Your task to perform on an android device: Open Google Chrome Image 0: 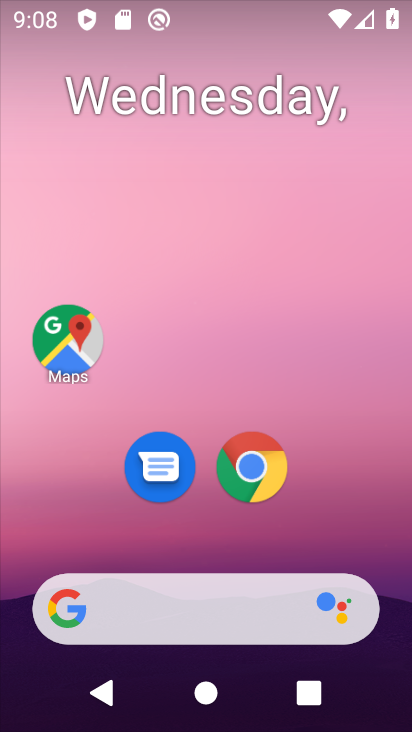
Step 0: click (217, 215)
Your task to perform on an android device: Open Google Chrome Image 1: 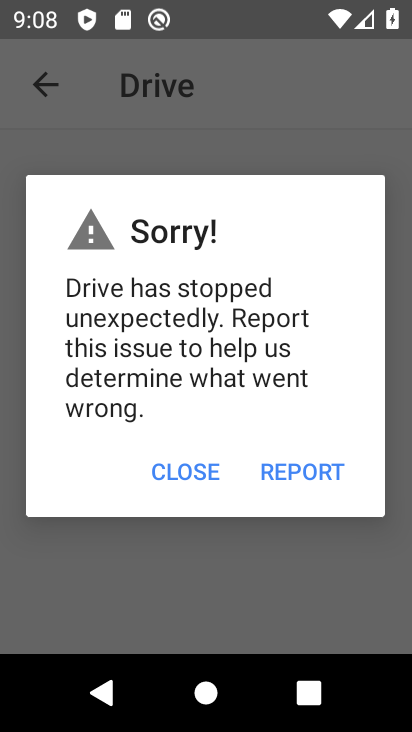
Step 1: click (188, 474)
Your task to perform on an android device: Open Google Chrome Image 2: 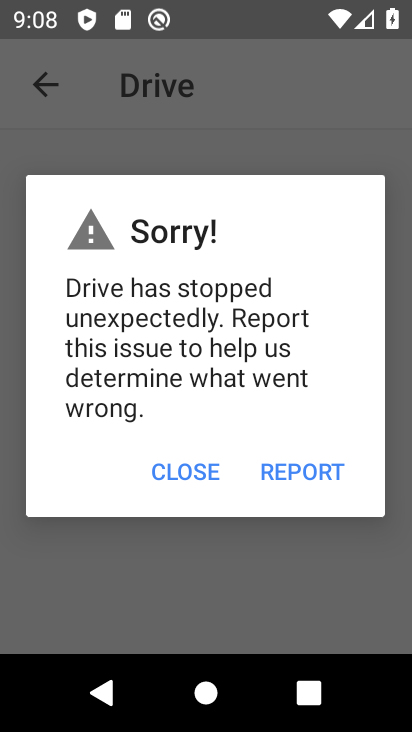
Step 2: click (183, 475)
Your task to perform on an android device: Open Google Chrome Image 3: 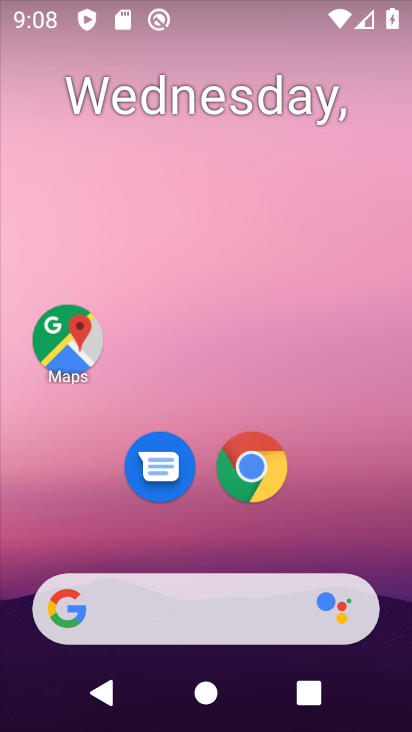
Step 3: drag from (297, 517) to (115, 12)
Your task to perform on an android device: Open Google Chrome Image 4: 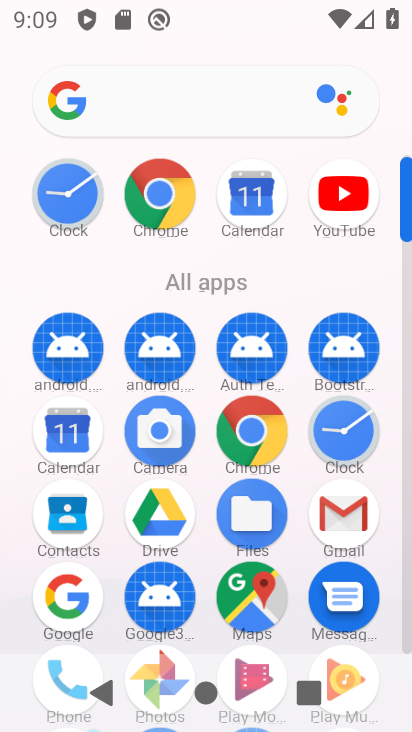
Step 4: click (171, 185)
Your task to perform on an android device: Open Google Chrome Image 5: 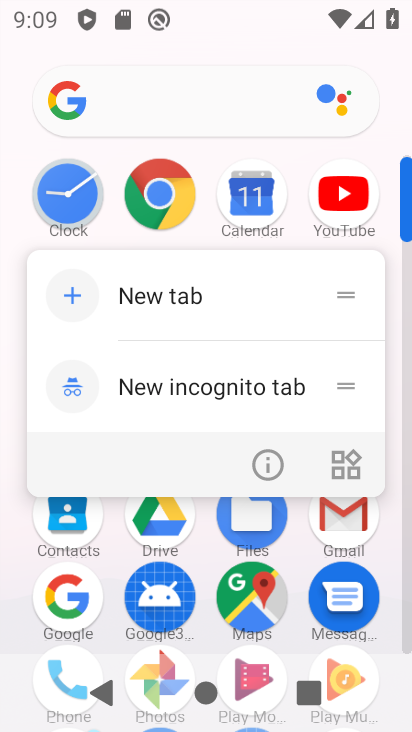
Step 5: click (176, 187)
Your task to perform on an android device: Open Google Chrome Image 6: 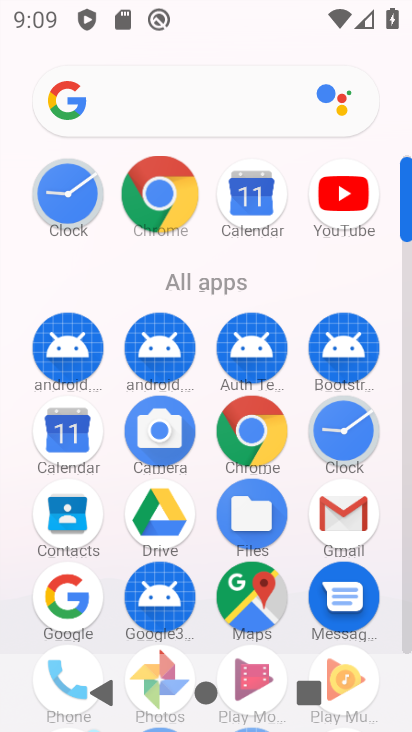
Step 6: click (176, 187)
Your task to perform on an android device: Open Google Chrome Image 7: 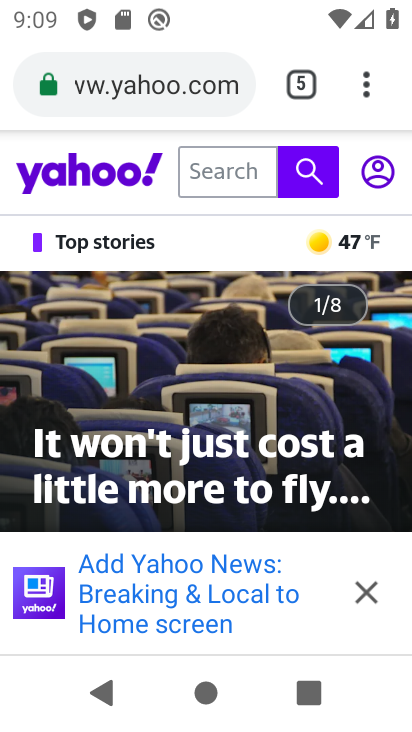
Step 7: click (363, 85)
Your task to perform on an android device: Open Google Chrome Image 8: 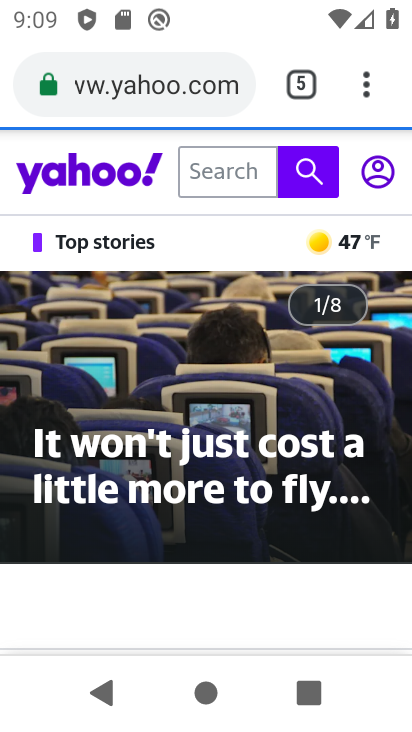
Step 8: drag from (366, 86) to (74, 162)
Your task to perform on an android device: Open Google Chrome Image 9: 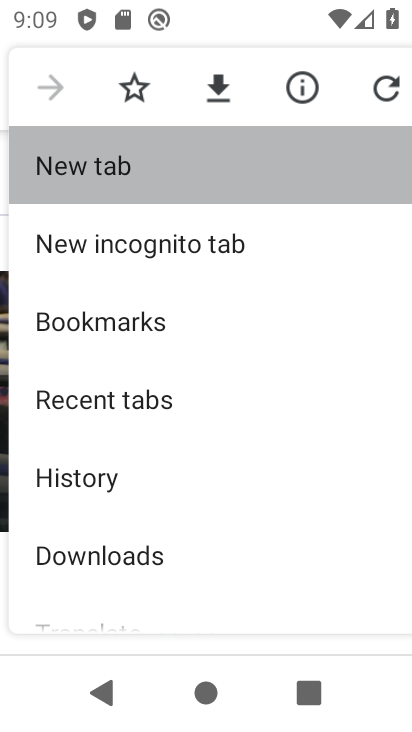
Step 9: click (74, 162)
Your task to perform on an android device: Open Google Chrome Image 10: 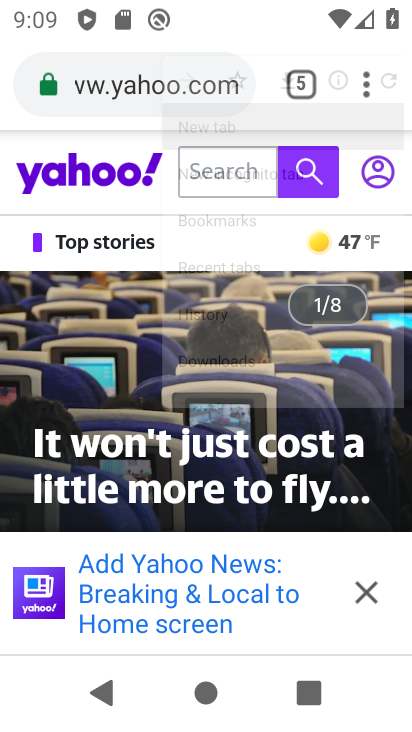
Step 10: click (74, 162)
Your task to perform on an android device: Open Google Chrome Image 11: 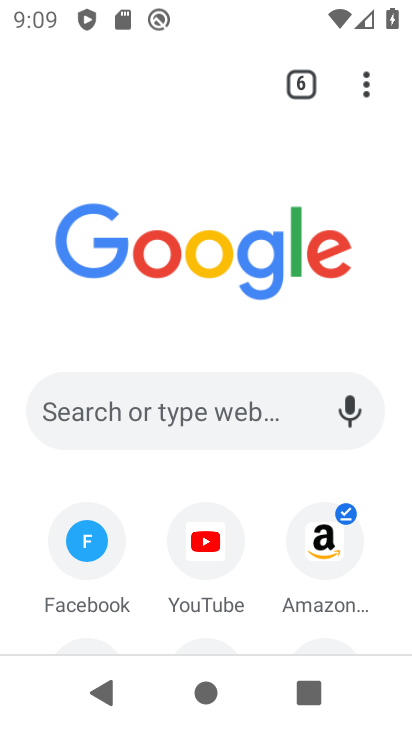
Step 11: press back button
Your task to perform on an android device: Open Google Chrome Image 12: 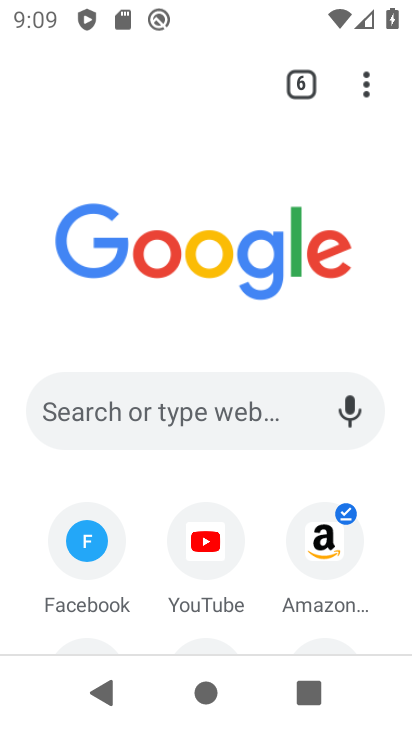
Step 12: press back button
Your task to perform on an android device: Open Google Chrome Image 13: 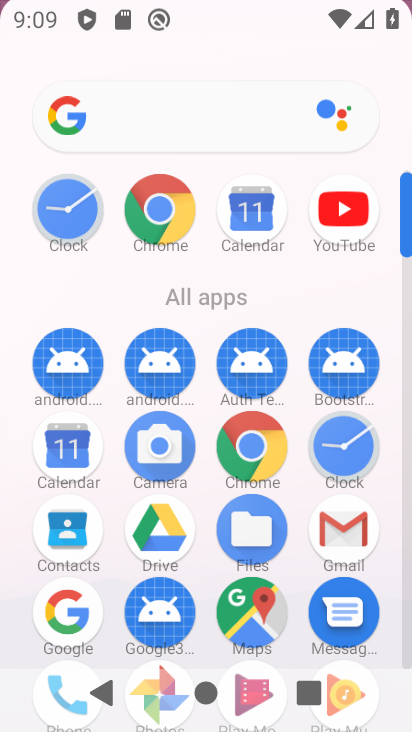
Step 13: press back button
Your task to perform on an android device: Open Google Chrome Image 14: 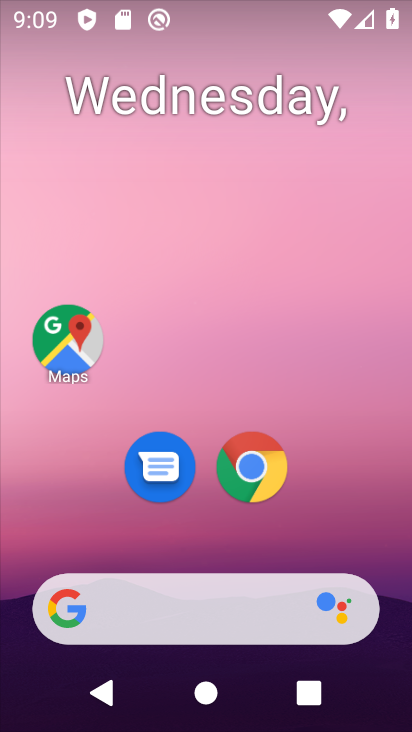
Step 14: drag from (324, 546) to (181, 84)
Your task to perform on an android device: Open Google Chrome Image 15: 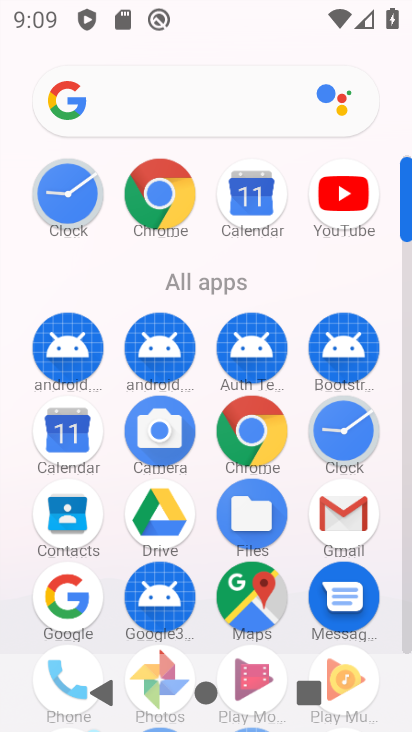
Step 15: click (171, 200)
Your task to perform on an android device: Open Google Chrome Image 16: 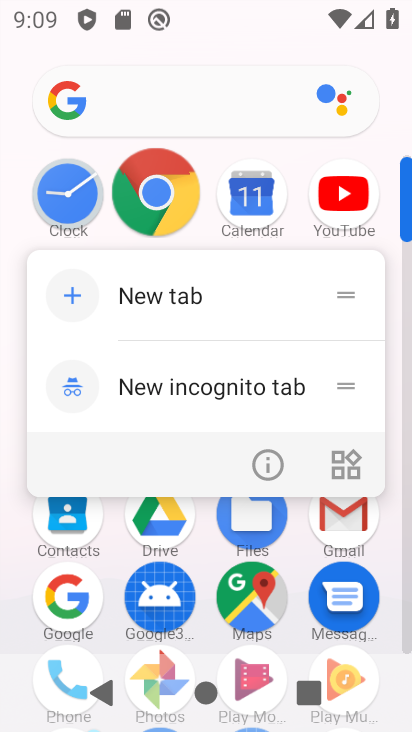
Step 16: click (167, 199)
Your task to perform on an android device: Open Google Chrome Image 17: 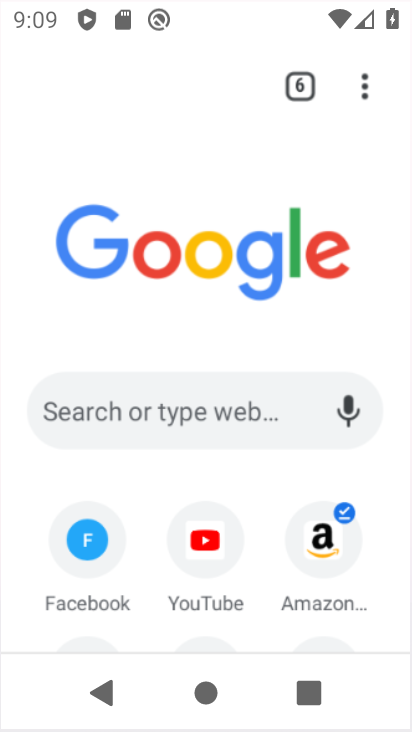
Step 17: click (167, 201)
Your task to perform on an android device: Open Google Chrome Image 18: 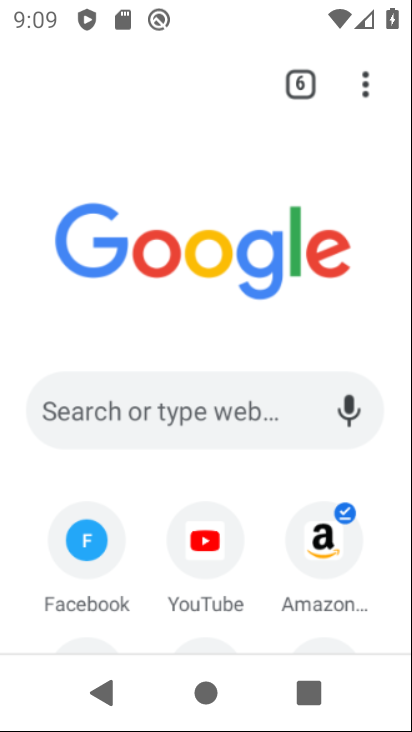
Step 18: click (167, 198)
Your task to perform on an android device: Open Google Chrome Image 19: 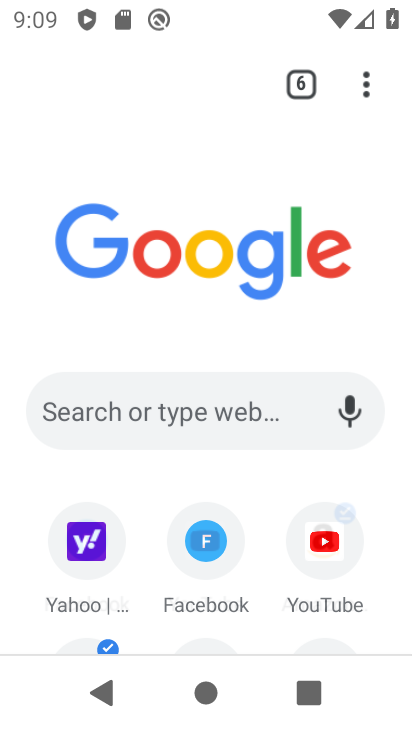
Step 19: click (132, 183)
Your task to perform on an android device: Open Google Chrome Image 20: 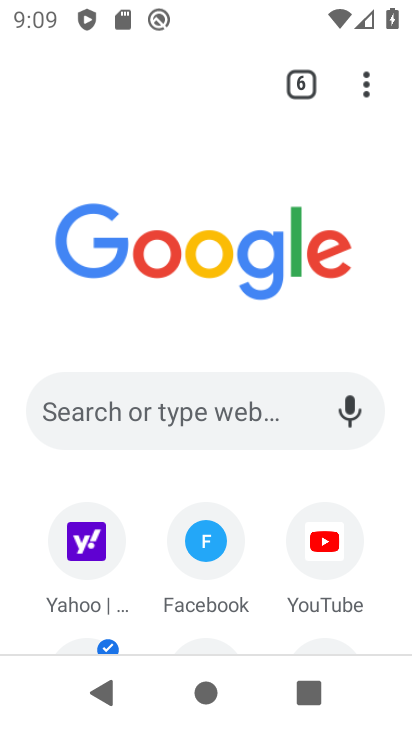
Step 20: task complete